Your task to perform on an android device: Go to display settings Image 0: 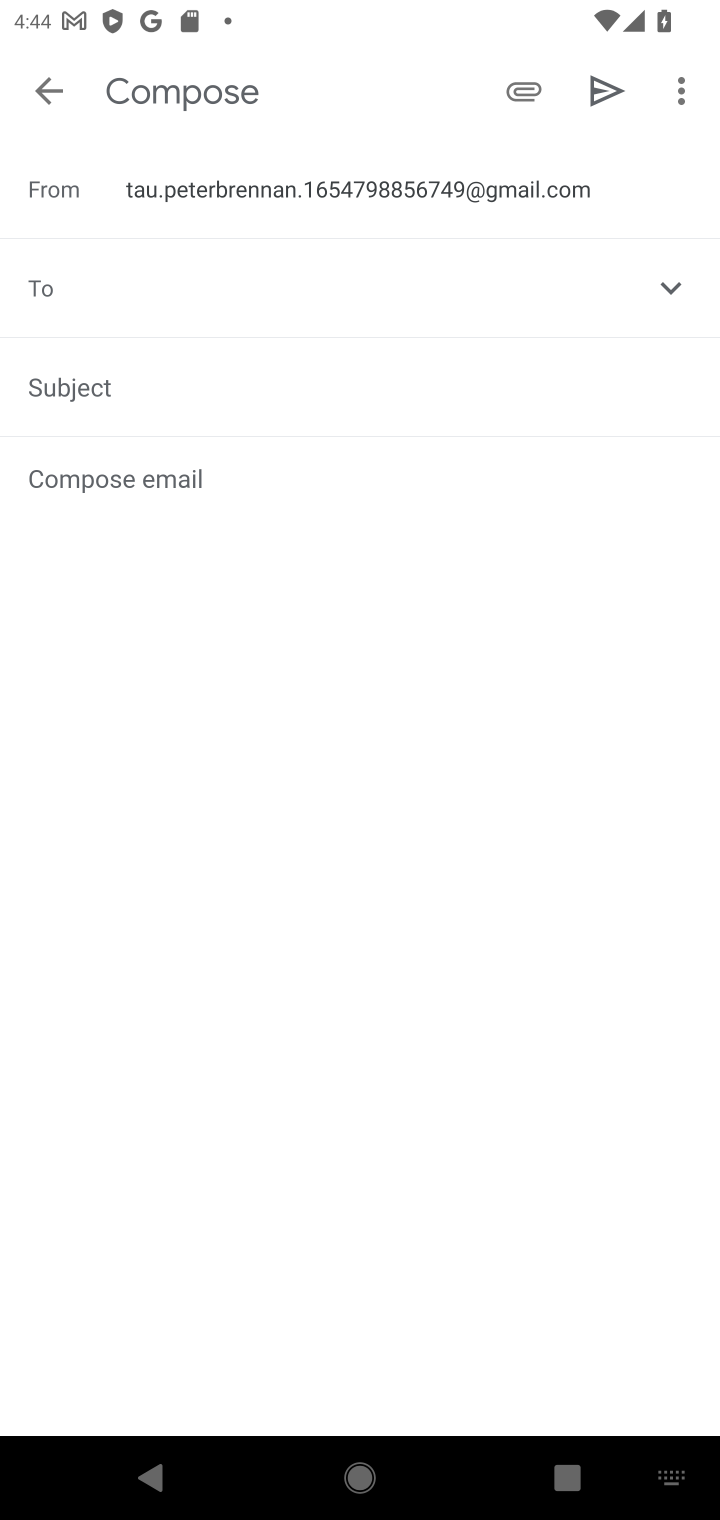
Step 0: press home button
Your task to perform on an android device: Go to display settings Image 1: 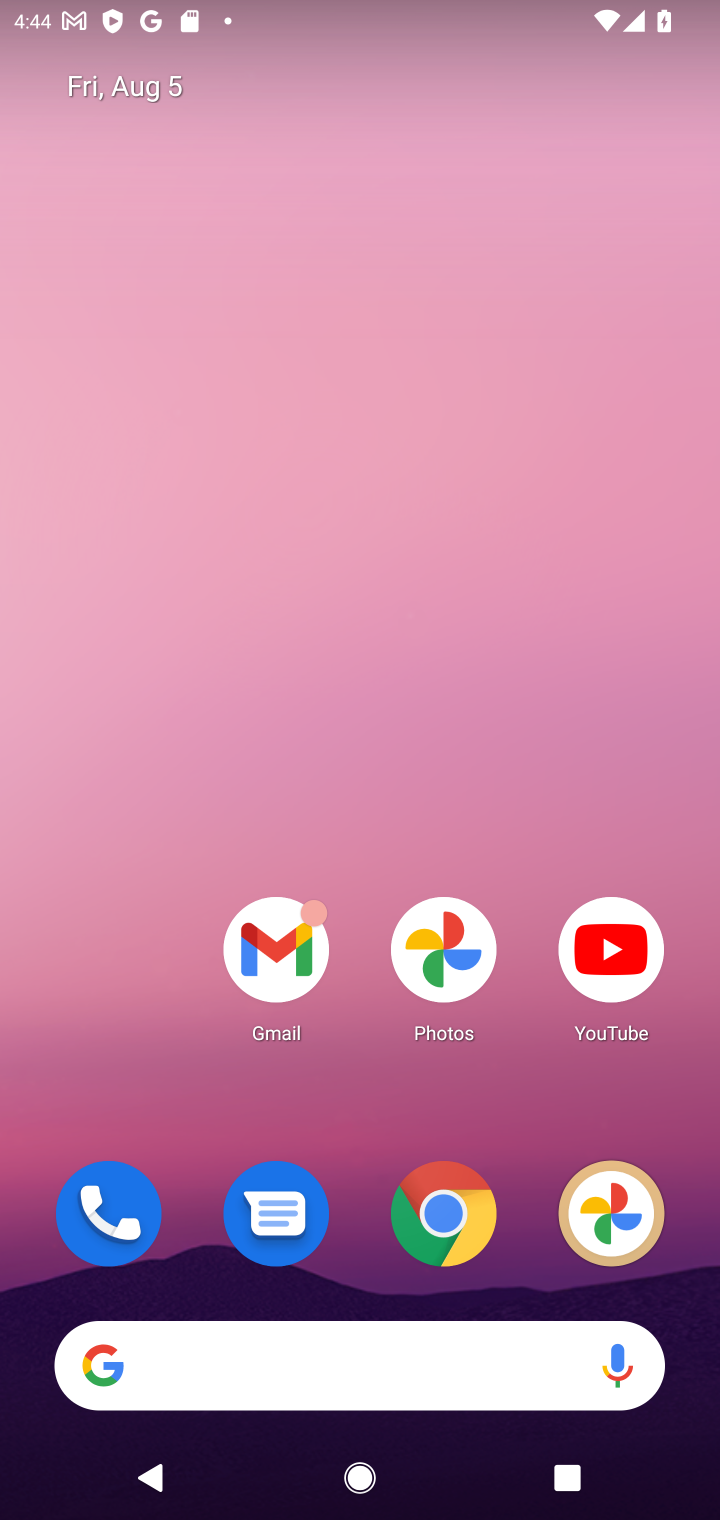
Step 1: drag from (353, 1296) to (425, 5)
Your task to perform on an android device: Go to display settings Image 2: 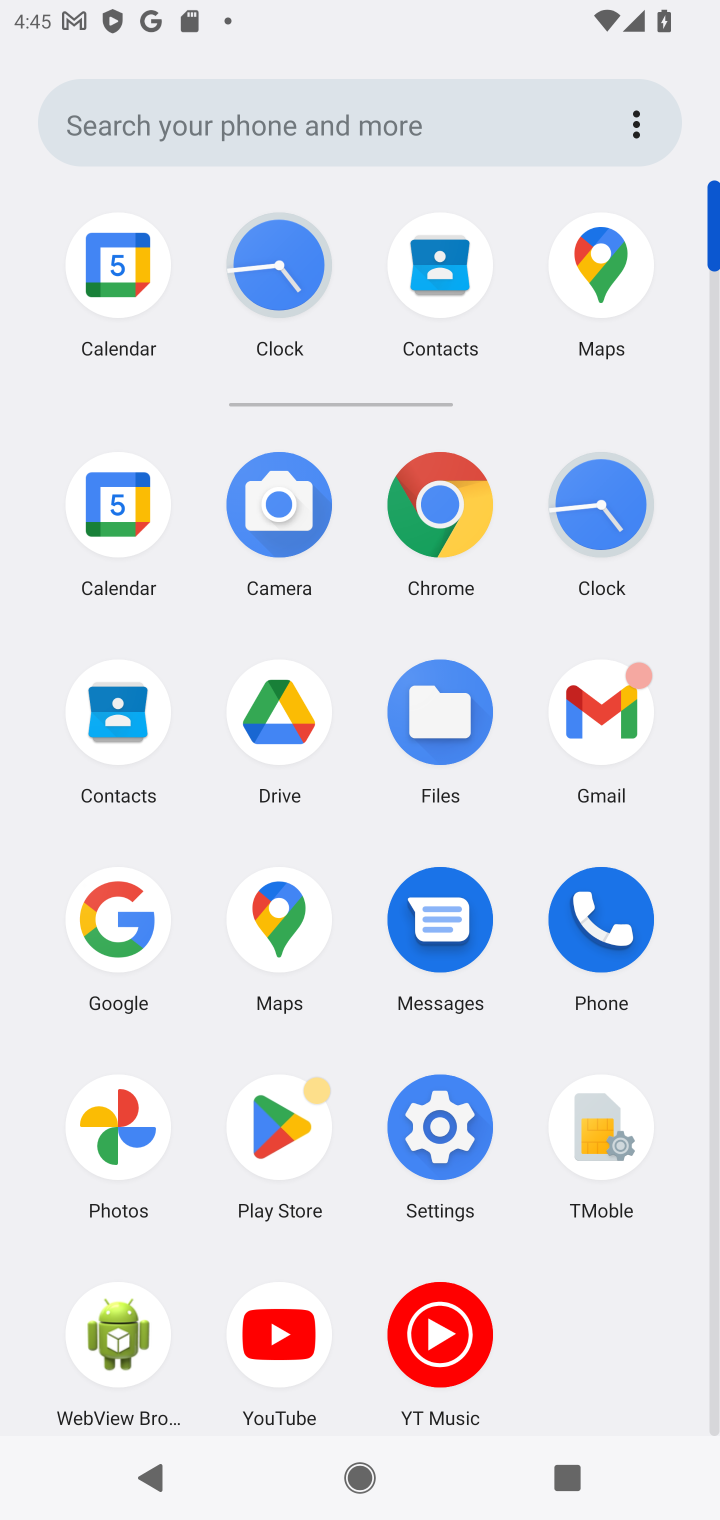
Step 2: click (466, 1177)
Your task to perform on an android device: Go to display settings Image 3: 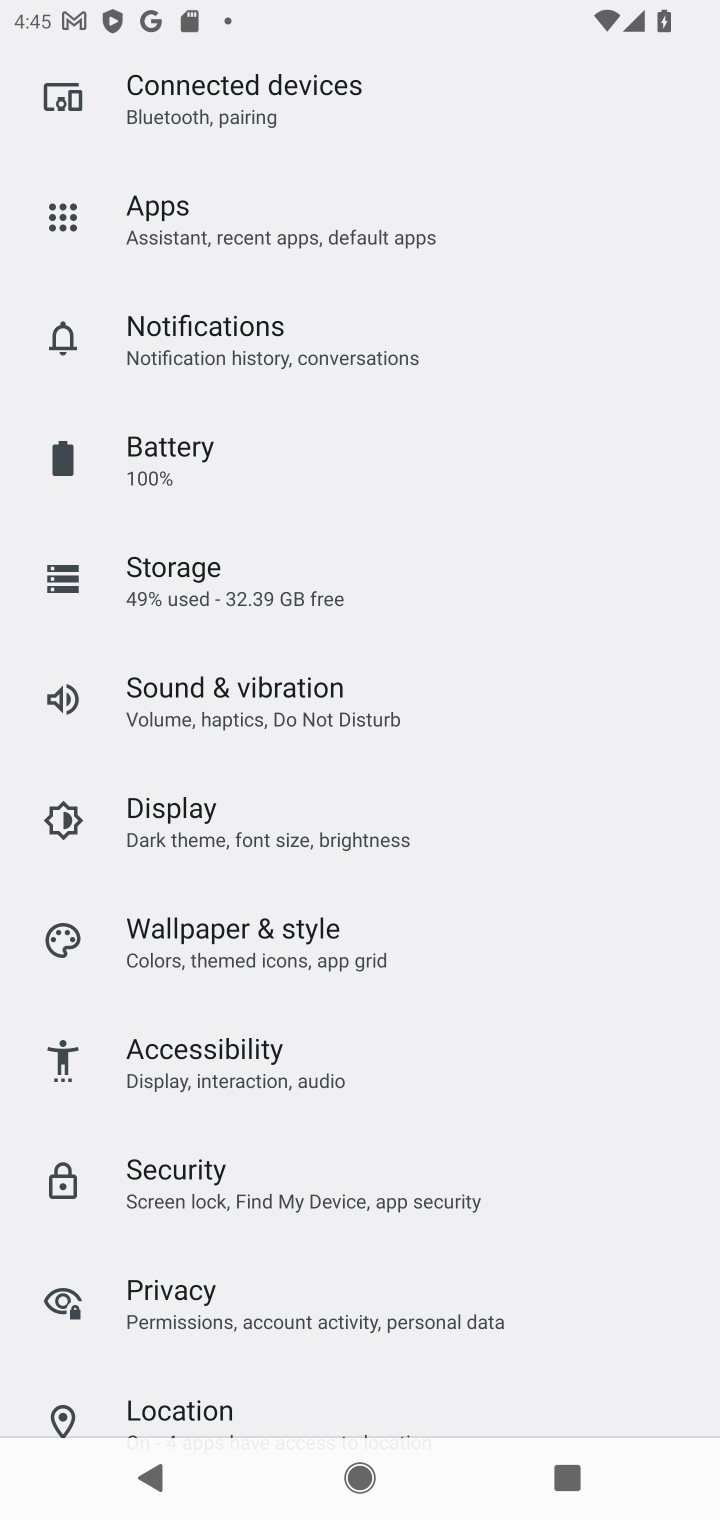
Step 3: click (341, 812)
Your task to perform on an android device: Go to display settings Image 4: 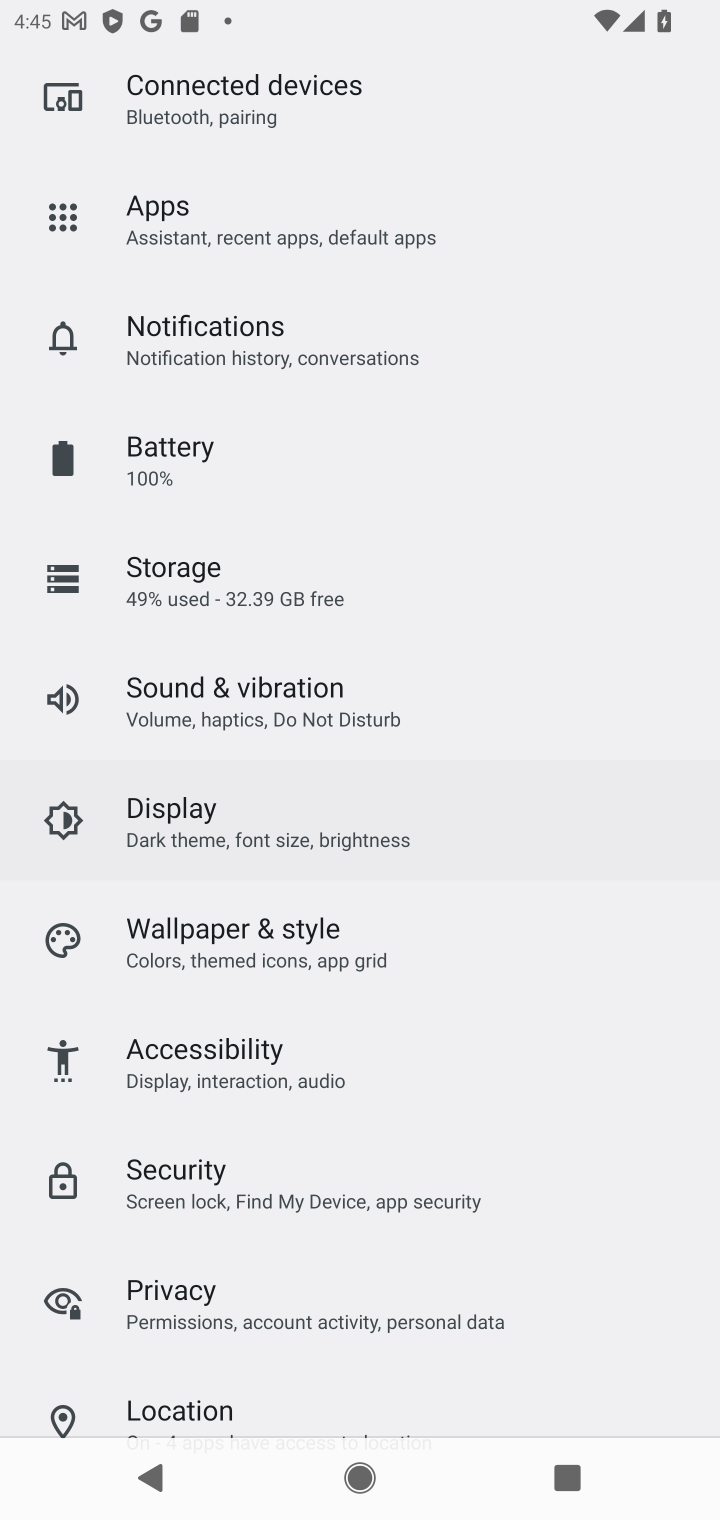
Step 4: task complete